Your task to perform on an android device: Open Google Chrome and click the shortcut for Amazon.com Image 0: 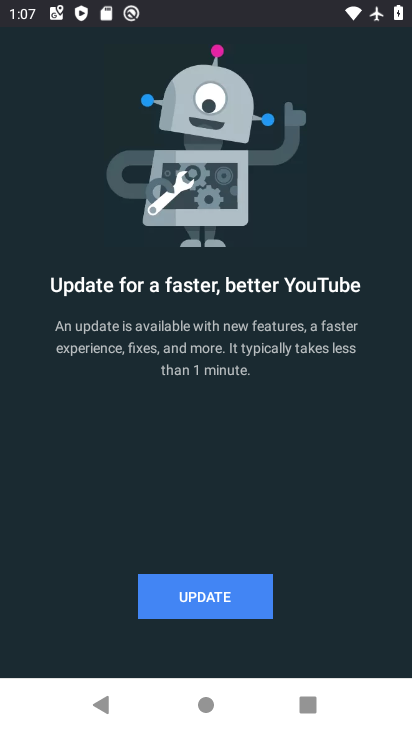
Step 0: press home button
Your task to perform on an android device: Open Google Chrome and click the shortcut for Amazon.com Image 1: 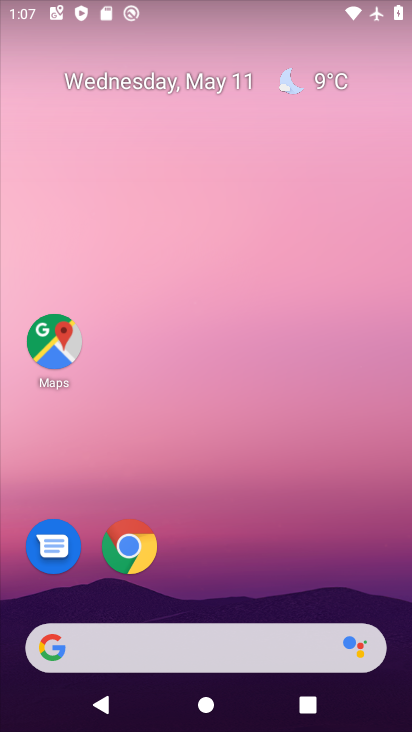
Step 1: drag from (268, 662) to (409, 138)
Your task to perform on an android device: Open Google Chrome and click the shortcut for Amazon.com Image 2: 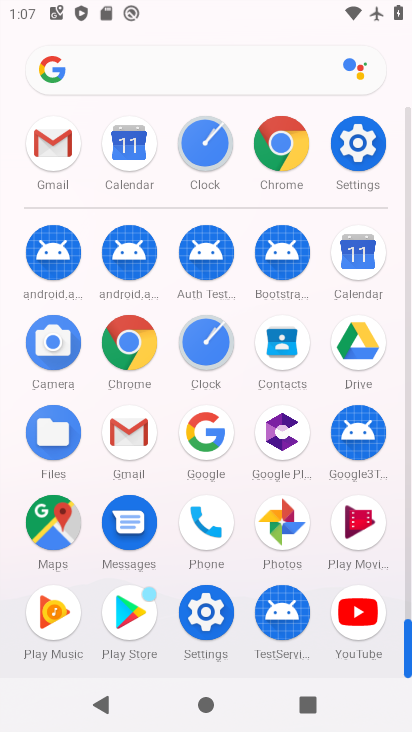
Step 2: click (117, 348)
Your task to perform on an android device: Open Google Chrome and click the shortcut for Amazon.com Image 3: 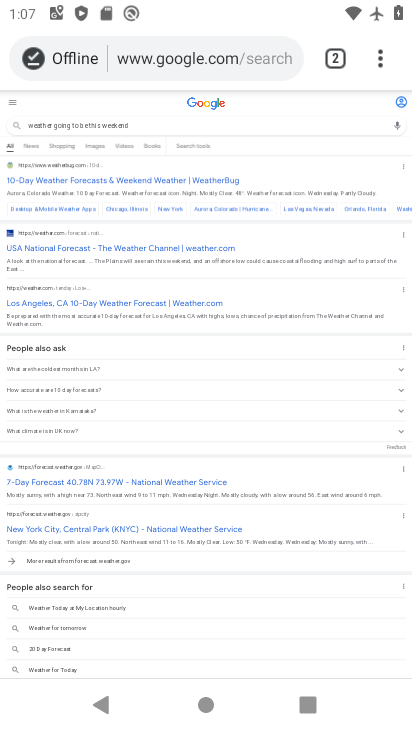
Step 3: click (366, 62)
Your task to perform on an android device: Open Google Chrome and click the shortcut for Amazon.com Image 4: 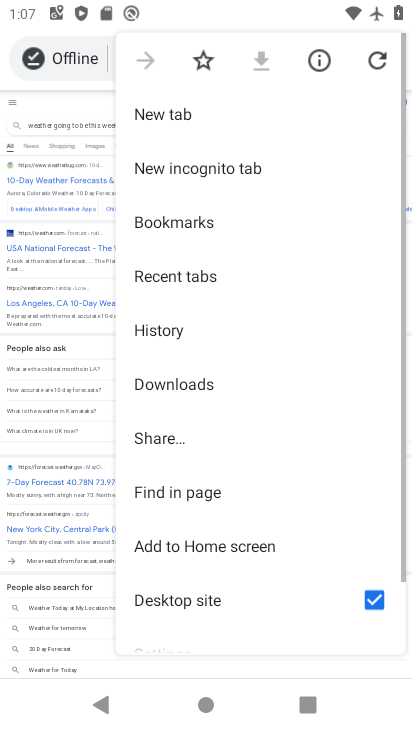
Step 4: click (184, 116)
Your task to perform on an android device: Open Google Chrome and click the shortcut for Amazon.com Image 5: 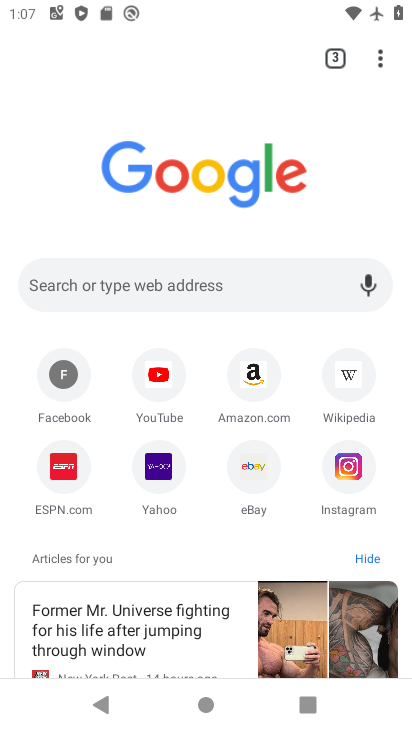
Step 5: click (242, 382)
Your task to perform on an android device: Open Google Chrome and click the shortcut for Amazon.com Image 6: 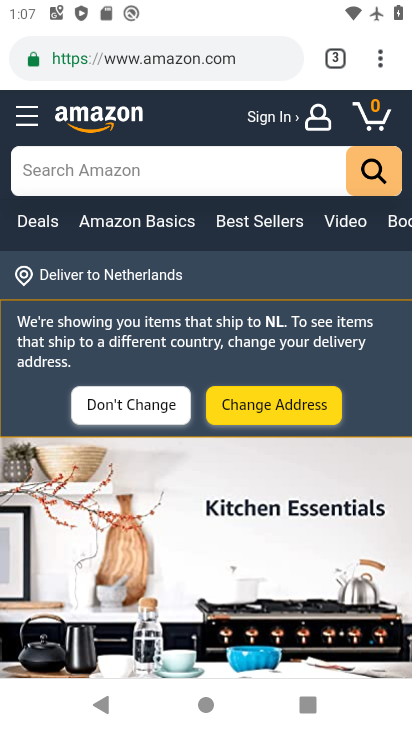
Step 6: task complete